Your task to perform on an android device: Open Chrome and go to the settings page Image 0: 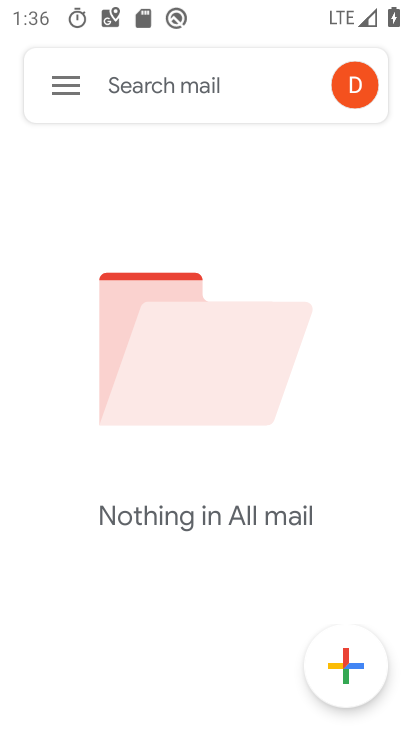
Step 0: press home button
Your task to perform on an android device: Open Chrome and go to the settings page Image 1: 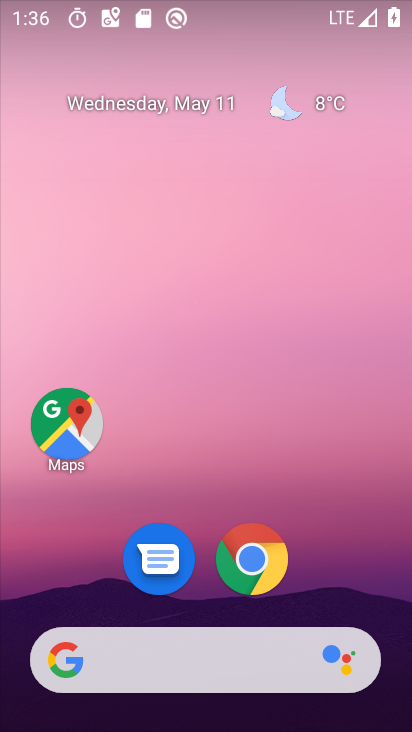
Step 1: click (265, 560)
Your task to perform on an android device: Open Chrome and go to the settings page Image 2: 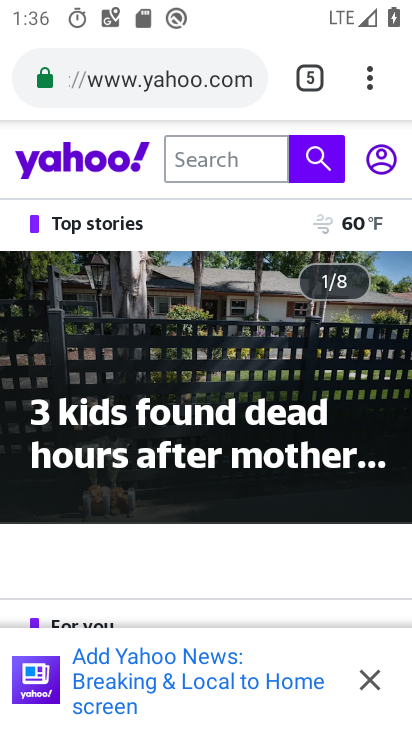
Step 2: click (370, 84)
Your task to perform on an android device: Open Chrome and go to the settings page Image 3: 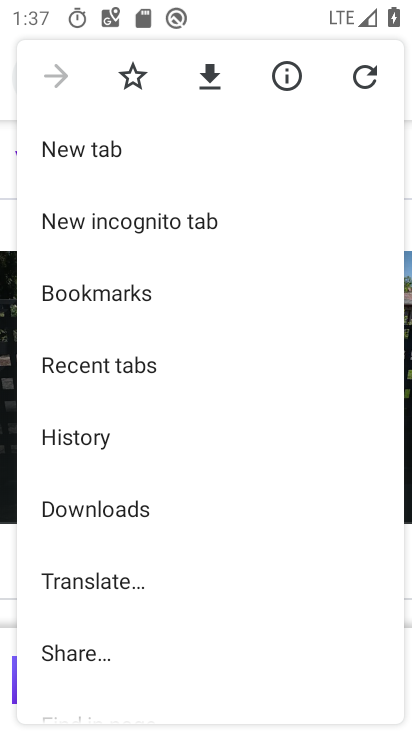
Step 3: drag from (86, 611) to (84, 233)
Your task to perform on an android device: Open Chrome and go to the settings page Image 4: 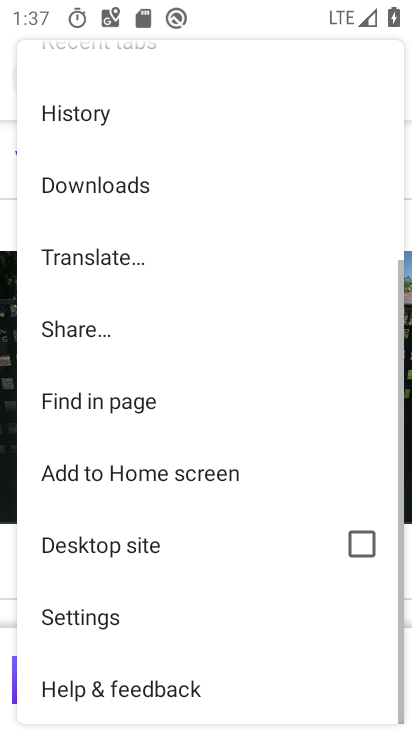
Step 4: click (89, 619)
Your task to perform on an android device: Open Chrome and go to the settings page Image 5: 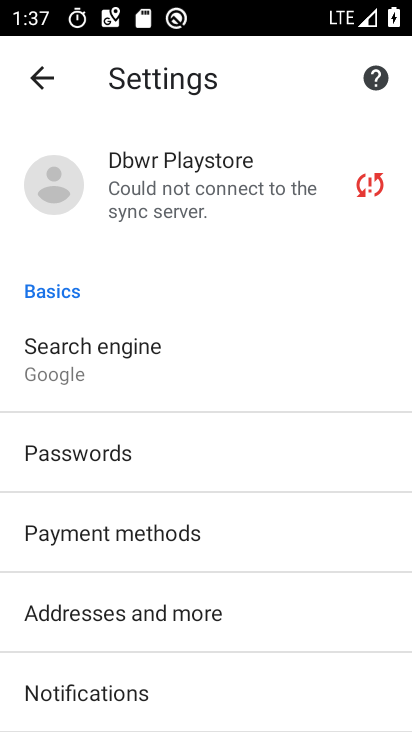
Step 5: task complete